Your task to perform on an android device: change timer sound Image 0: 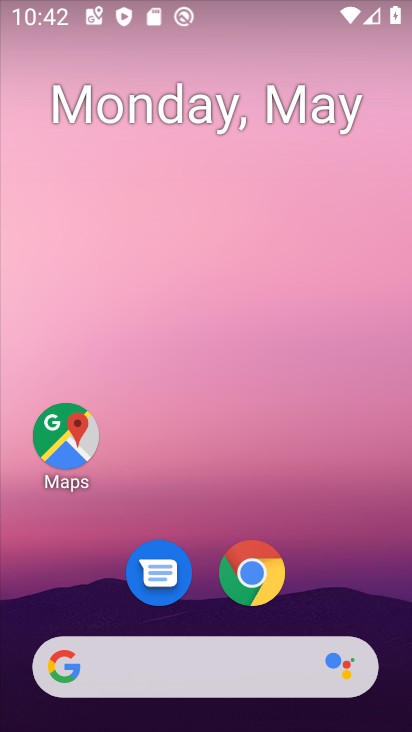
Step 0: drag from (235, 330) to (299, 52)
Your task to perform on an android device: change timer sound Image 1: 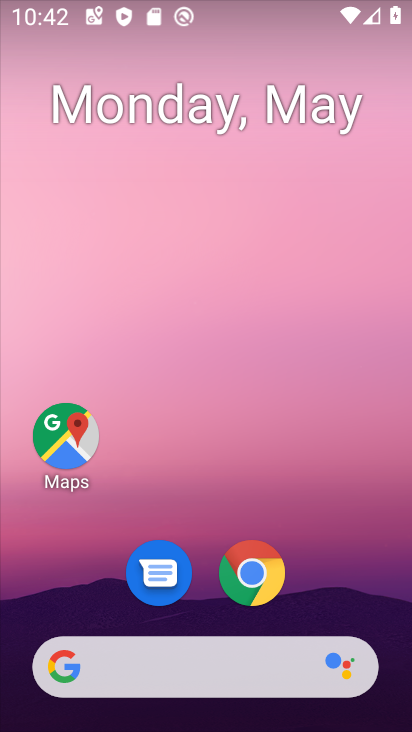
Step 1: drag from (175, 653) to (332, 69)
Your task to perform on an android device: change timer sound Image 2: 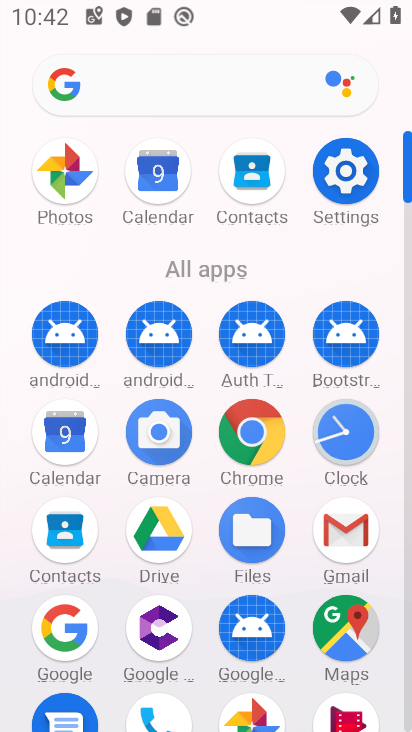
Step 2: click (351, 434)
Your task to perform on an android device: change timer sound Image 3: 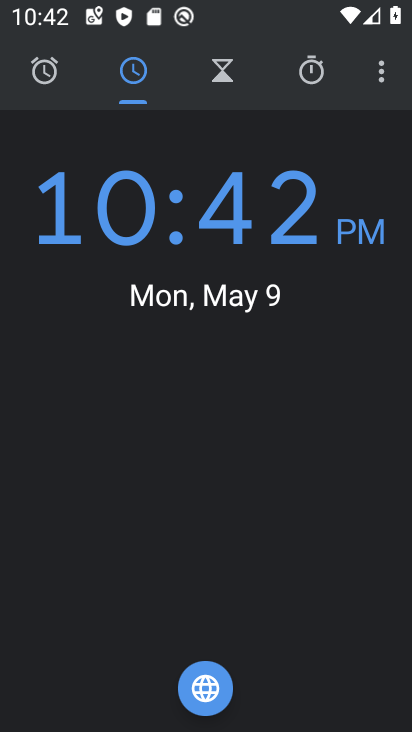
Step 3: click (378, 71)
Your task to perform on an android device: change timer sound Image 4: 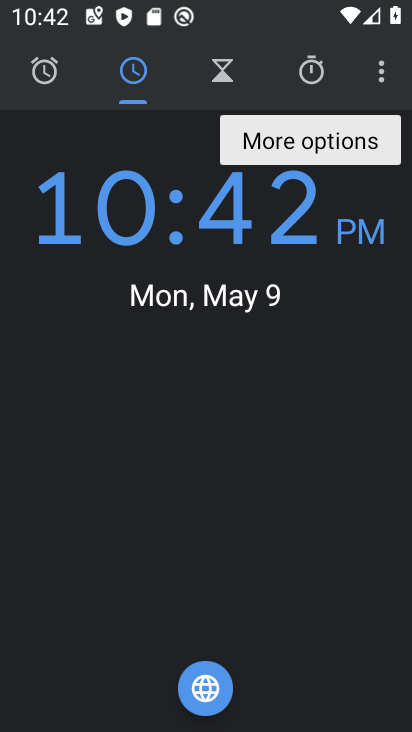
Step 4: click (373, 71)
Your task to perform on an android device: change timer sound Image 5: 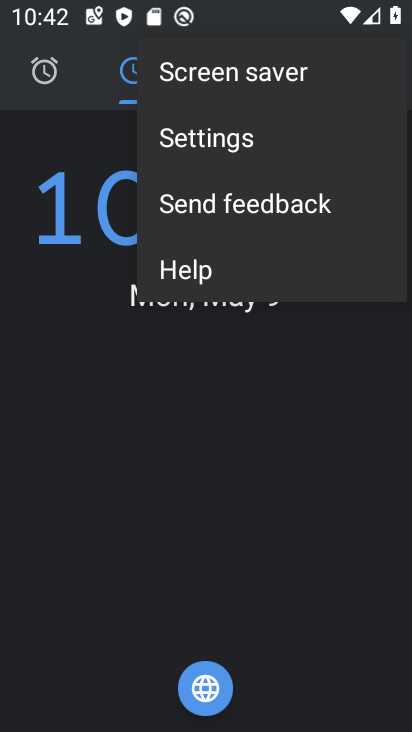
Step 5: click (222, 137)
Your task to perform on an android device: change timer sound Image 6: 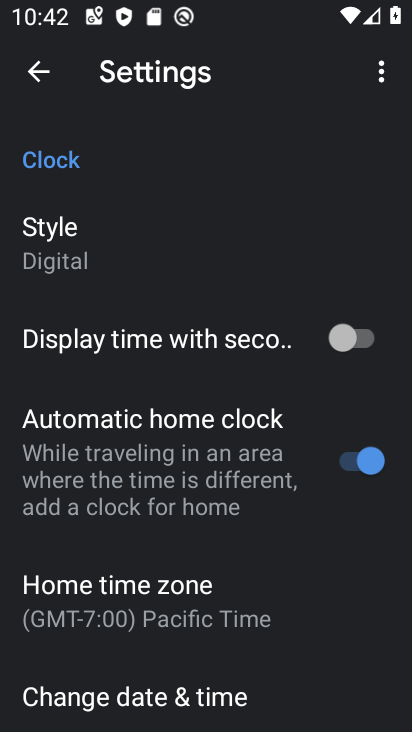
Step 6: drag from (195, 676) to (234, 286)
Your task to perform on an android device: change timer sound Image 7: 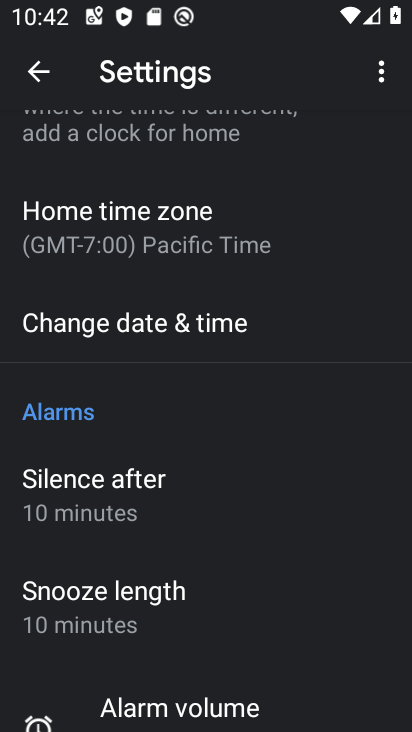
Step 7: drag from (145, 673) to (242, 148)
Your task to perform on an android device: change timer sound Image 8: 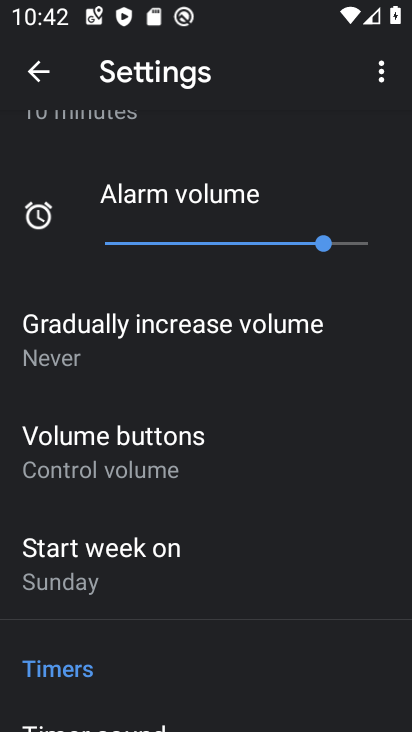
Step 8: drag from (162, 604) to (245, 69)
Your task to perform on an android device: change timer sound Image 9: 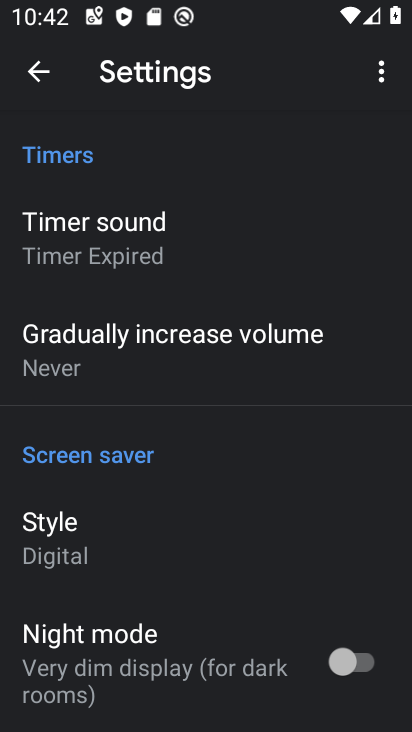
Step 9: click (101, 239)
Your task to perform on an android device: change timer sound Image 10: 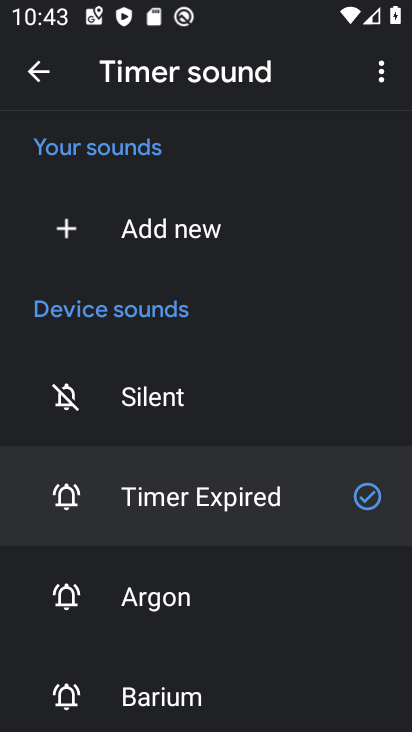
Step 10: click (178, 605)
Your task to perform on an android device: change timer sound Image 11: 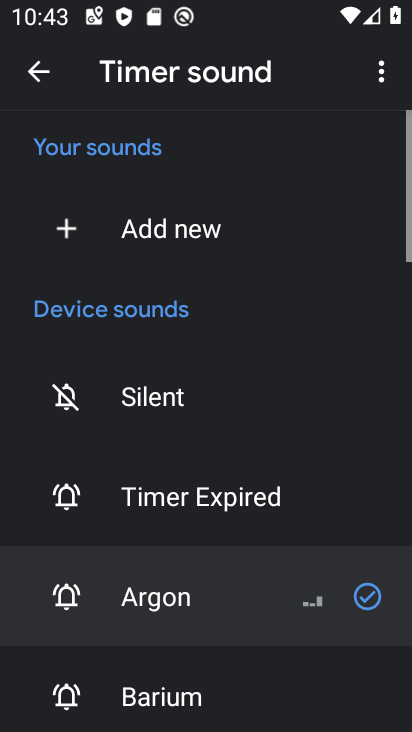
Step 11: task complete